Your task to perform on an android device: Find coffee shops on Maps Image 0: 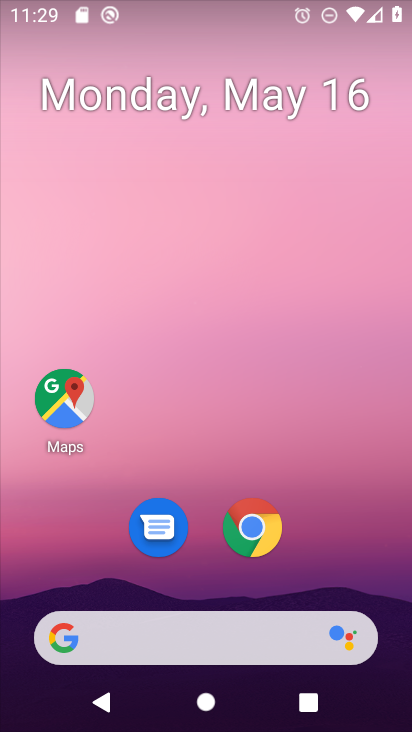
Step 0: click (68, 403)
Your task to perform on an android device: Find coffee shops on Maps Image 1: 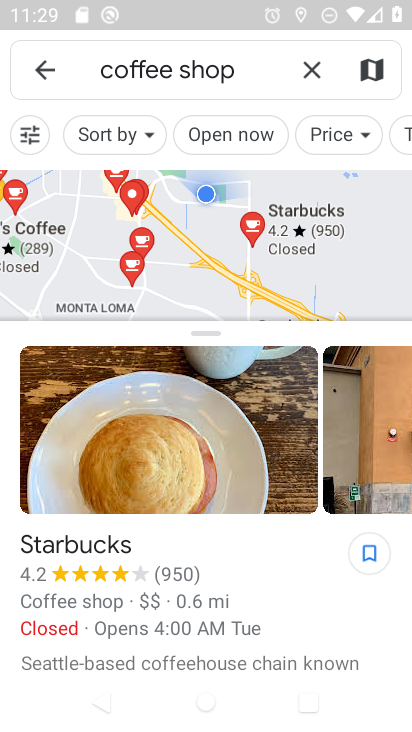
Step 1: task complete